Your task to perform on an android device: turn off sleep mode Image 0: 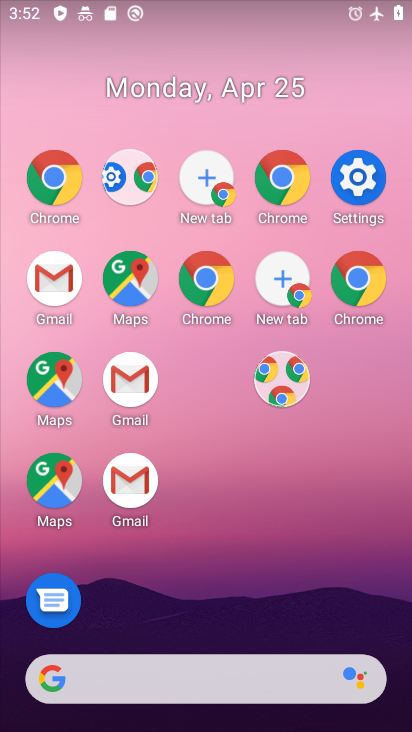
Step 0: drag from (196, 513) to (147, 23)
Your task to perform on an android device: turn off sleep mode Image 1: 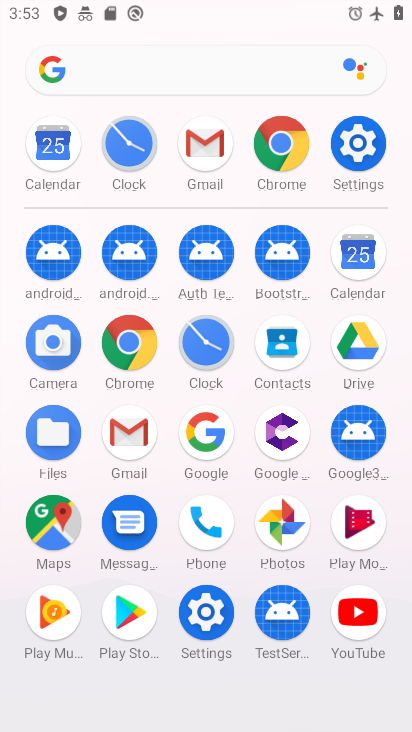
Step 1: click (350, 147)
Your task to perform on an android device: turn off sleep mode Image 2: 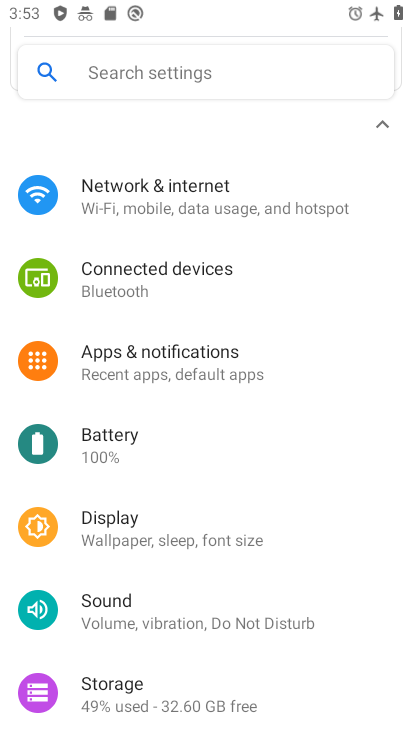
Step 2: task complete